Your task to perform on an android device: install app "Gboard" Image 0: 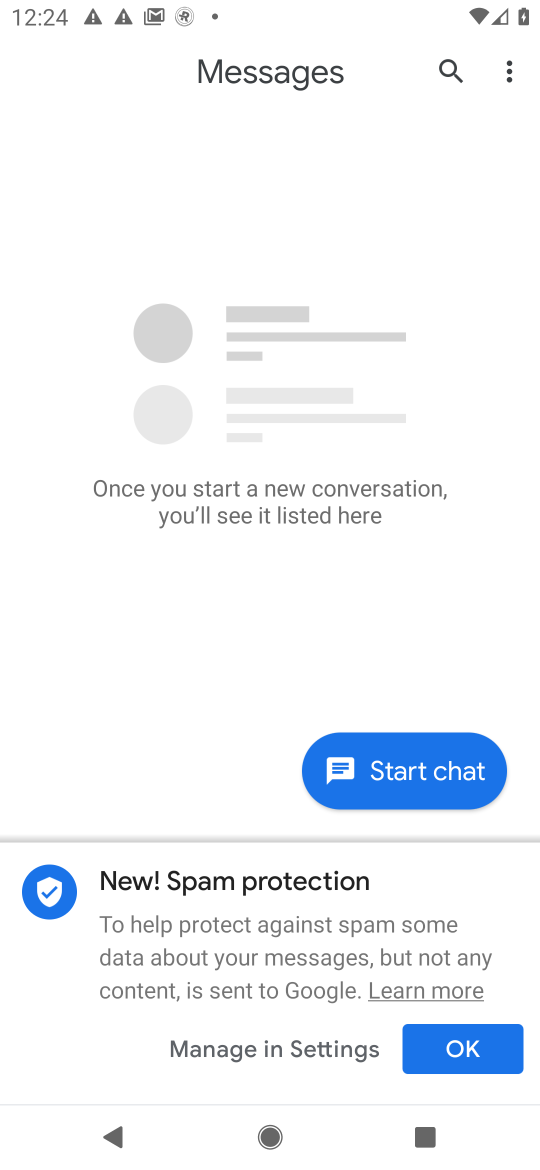
Step 0: press home button
Your task to perform on an android device: install app "Gboard" Image 1: 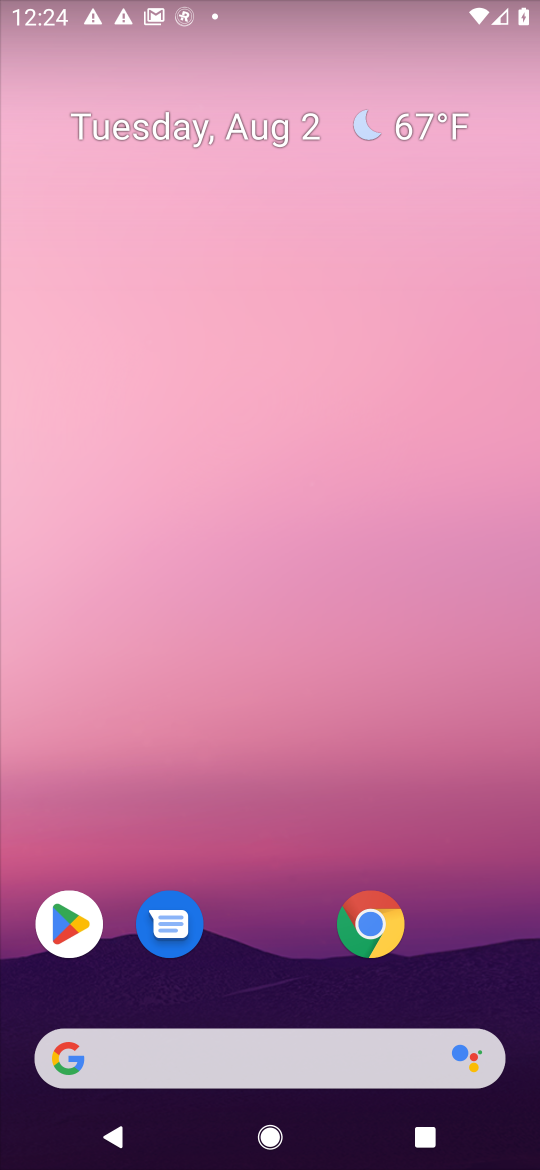
Step 1: drag from (277, 1001) to (328, 3)
Your task to perform on an android device: install app "Gboard" Image 2: 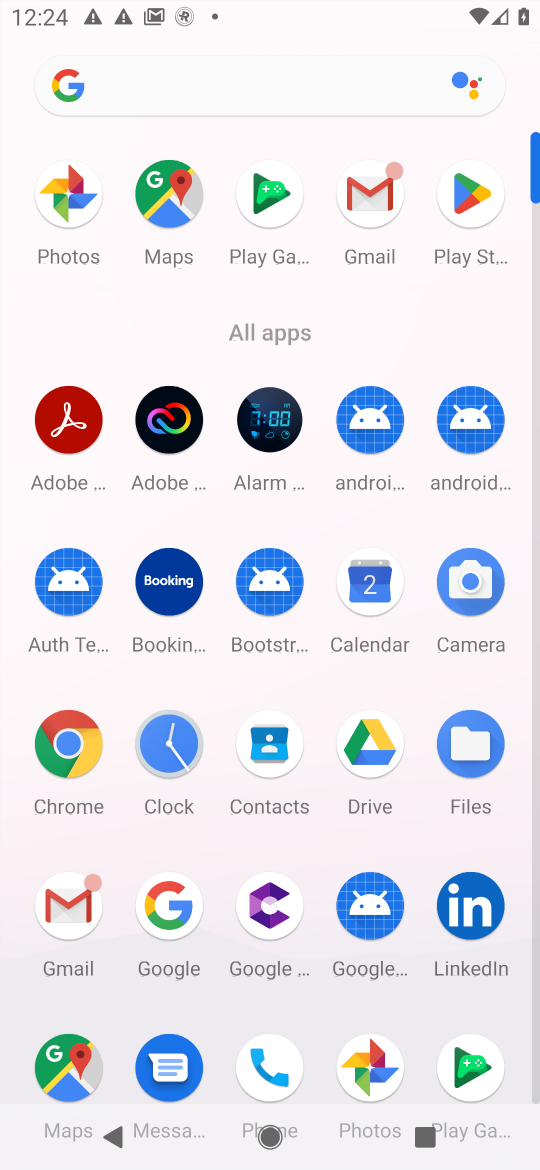
Step 2: click (467, 183)
Your task to perform on an android device: install app "Gboard" Image 3: 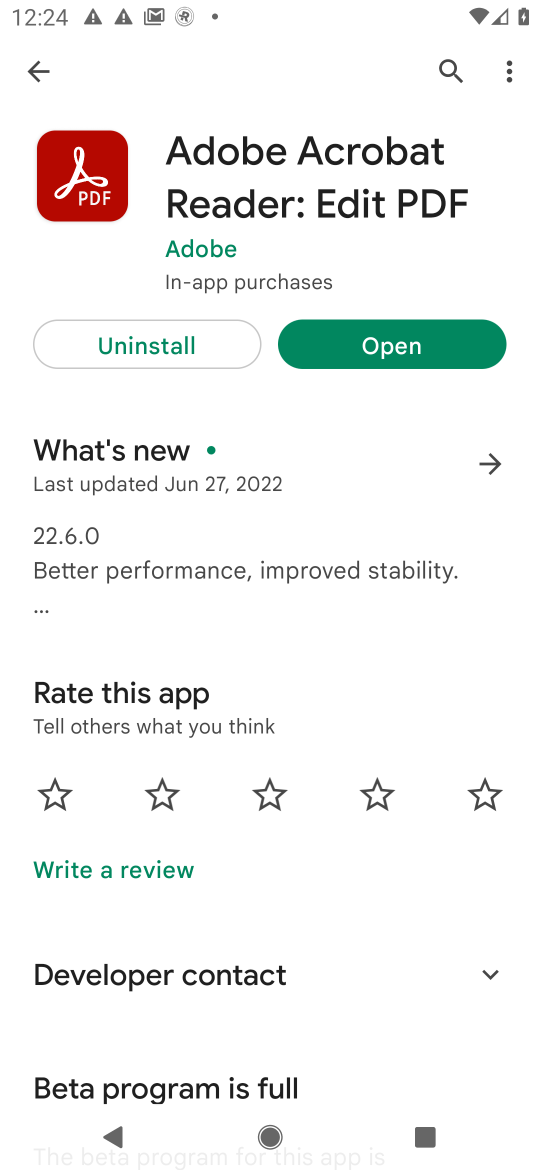
Step 3: click (451, 69)
Your task to perform on an android device: install app "Gboard" Image 4: 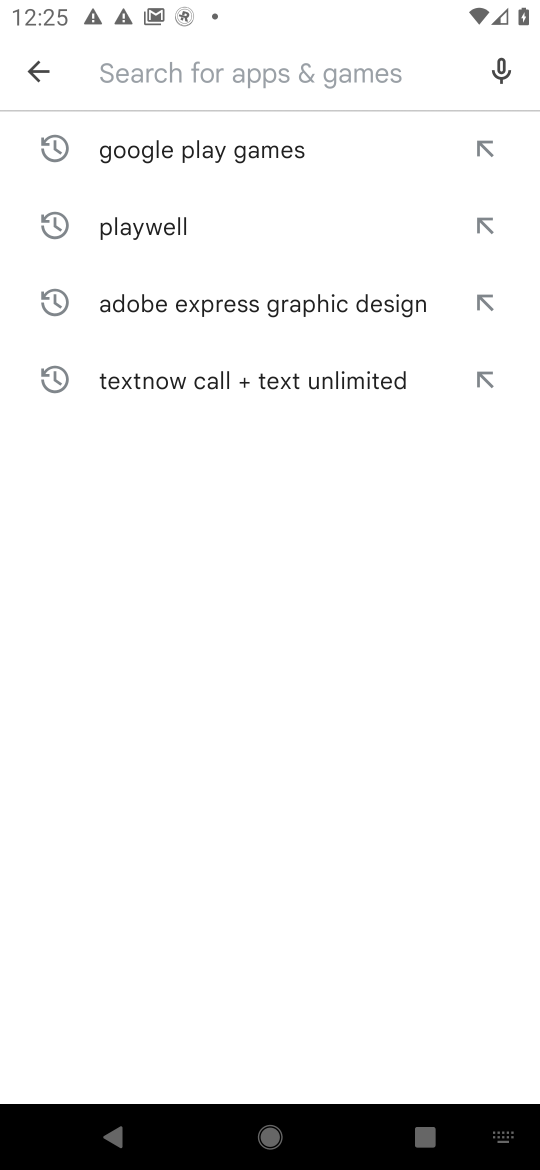
Step 4: type "Gboard"
Your task to perform on an android device: install app "Gboard" Image 5: 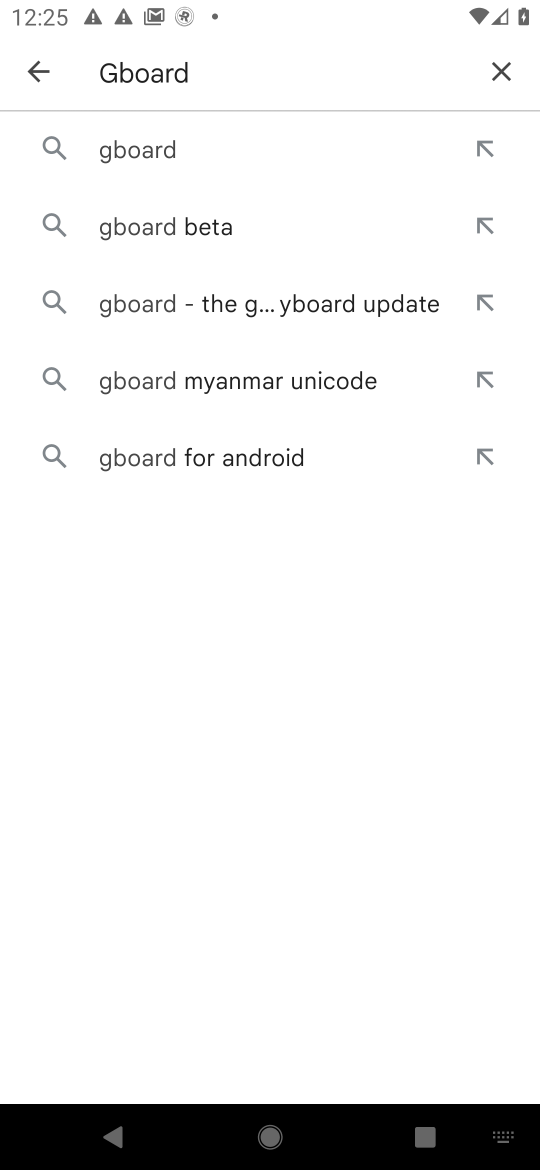
Step 5: click (181, 144)
Your task to perform on an android device: install app "Gboard" Image 6: 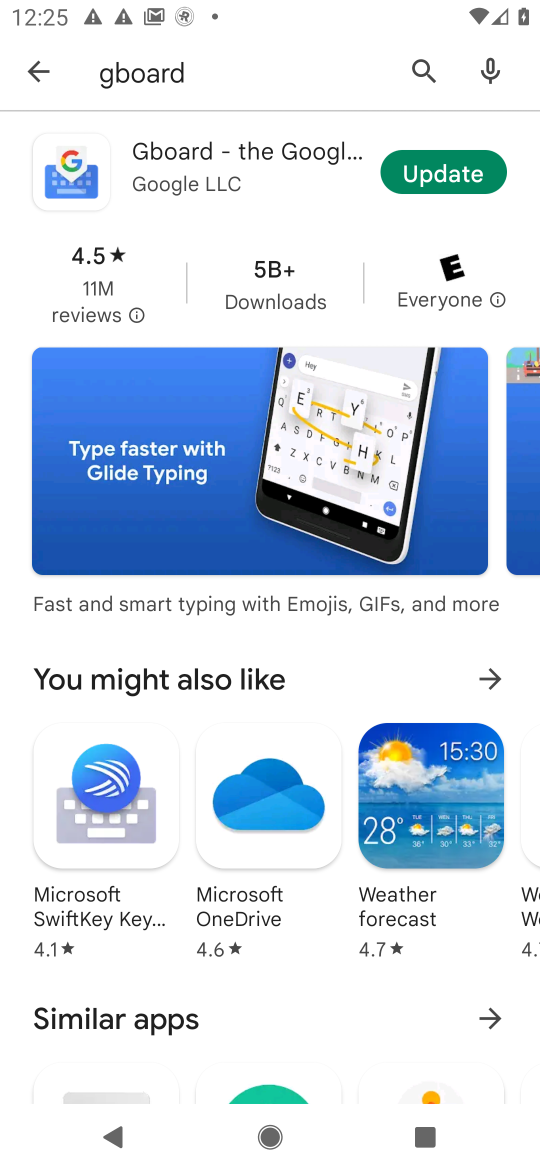
Step 6: click (314, 163)
Your task to perform on an android device: install app "Gboard" Image 7: 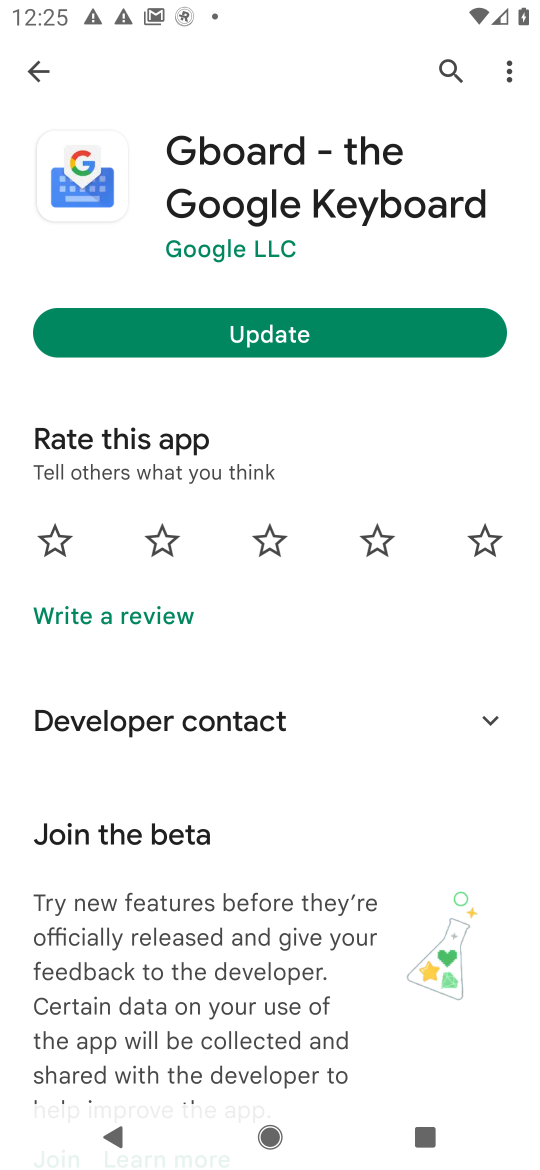
Step 7: click (262, 325)
Your task to perform on an android device: install app "Gboard" Image 8: 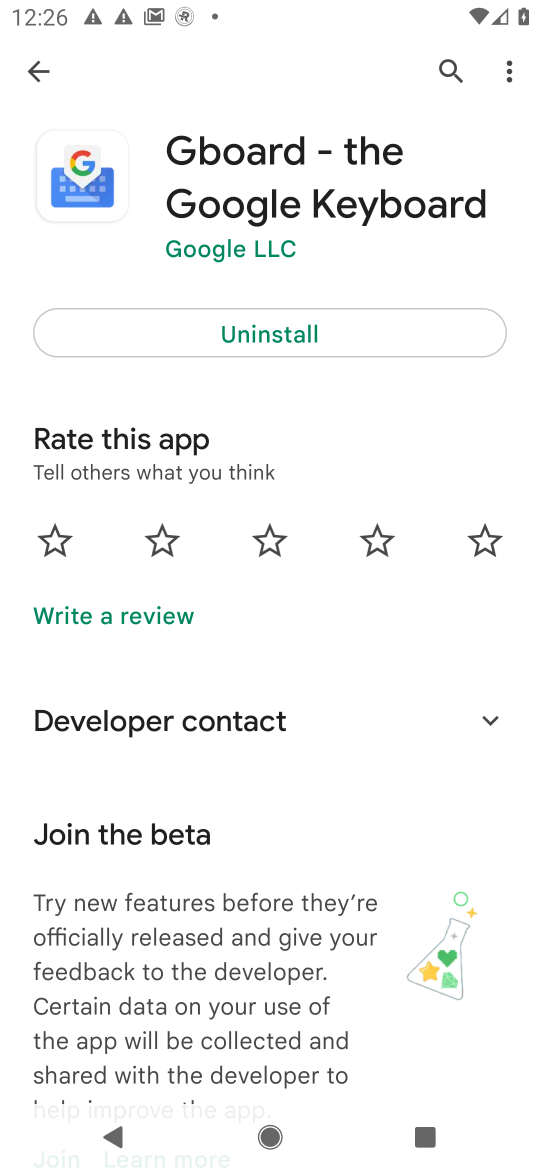
Step 8: task complete